Your task to perform on an android device: check out phone information Image 0: 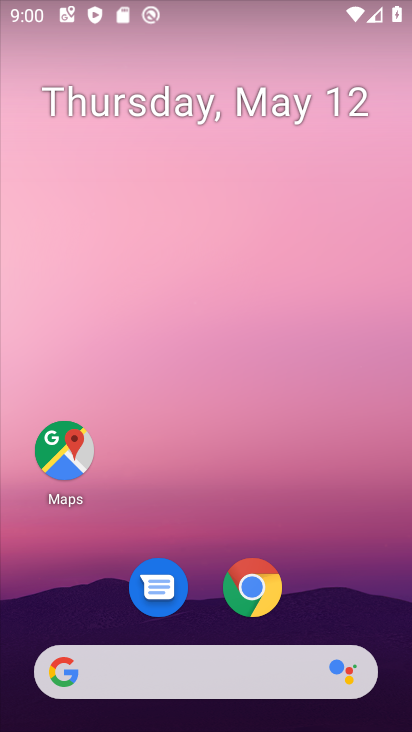
Step 0: drag from (301, 598) to (265, 259)
Your task to perform on an android device: check out phone information Image 1: 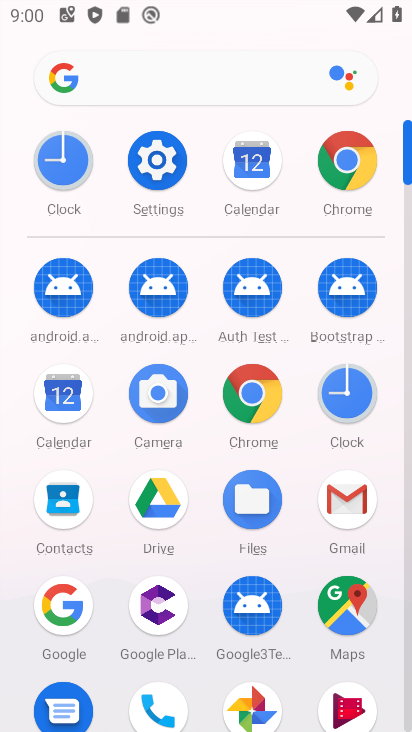
Step 1: click (146, 139)
Your task to perform on an android device: check out phone information Image 2: 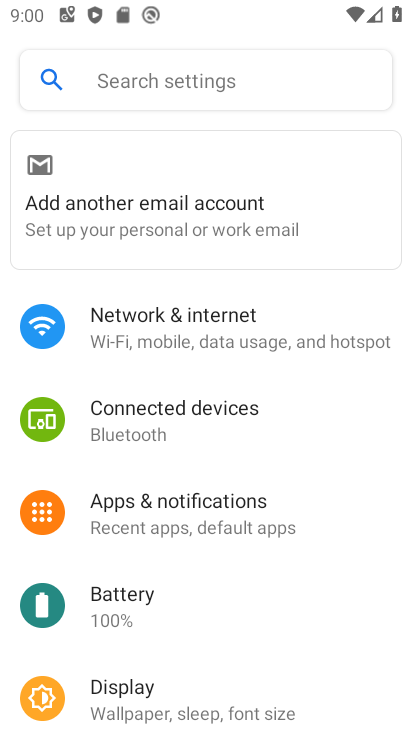
Step 2: drag from (251, 668) to (292, 151)
Your task to perform on an android device: check out phone information Image 3: 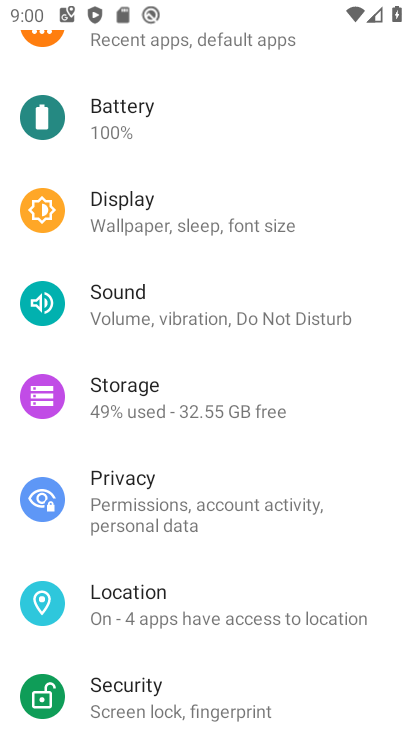
Step 3: drag from (177, 662) to (261, 184)
Your task to perform on an android device: check out phone information Image 4: 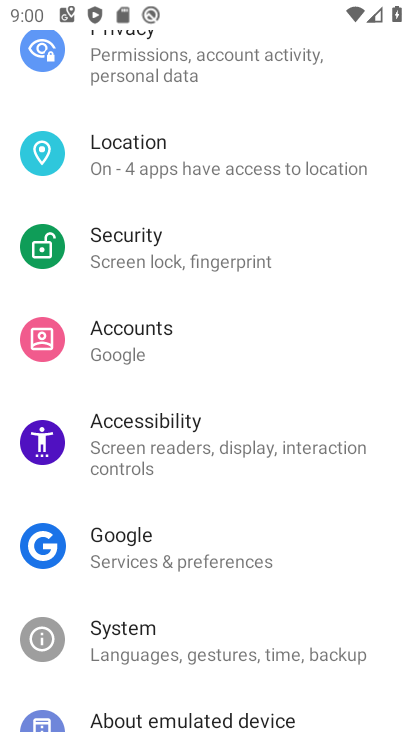
Step 4: drag from (177, 612) to (281, 100)
Your task to perform on an android device: check out phone information Image 5: 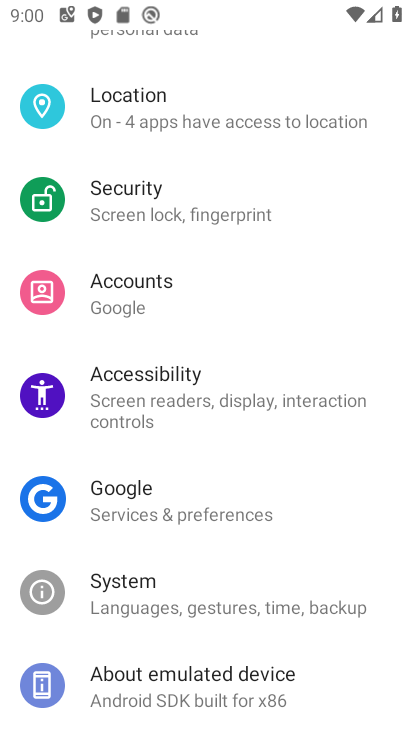
Step 5: click (142, 696)
Your task to perform on an android device: check out phone information Image 6: 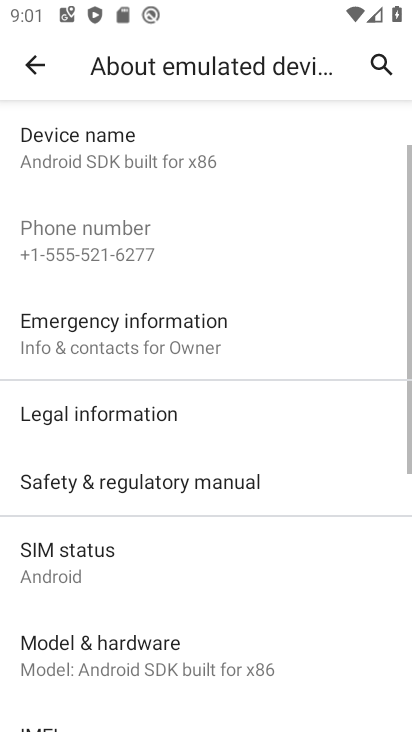
Step 6: task complete